Your task to perform on an android device: check out phone information Image 0: 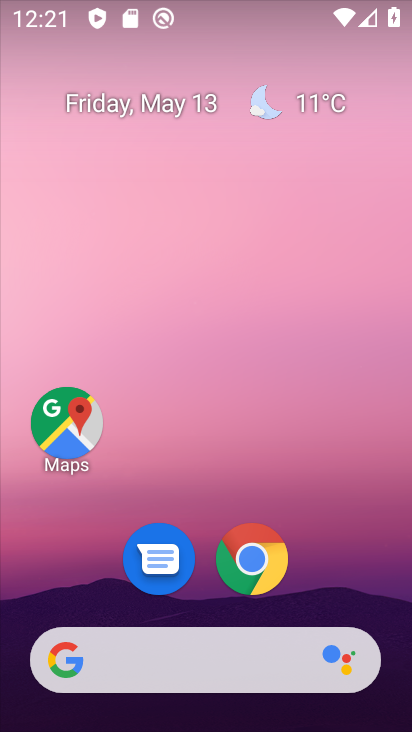
Step 0: drag from (202, 596) to (232, 100)
Your task to perform on an android device: check out phone information Image 1: 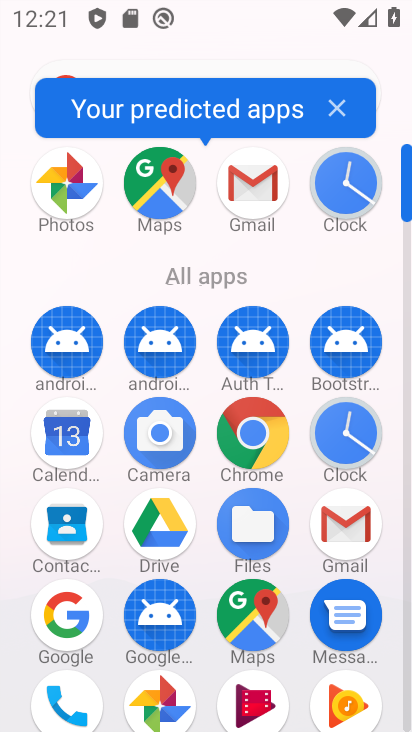
Step 1: drag from (200, 492) to (202, 165)
Your task to perform on an android device: check out phone information Image 2: 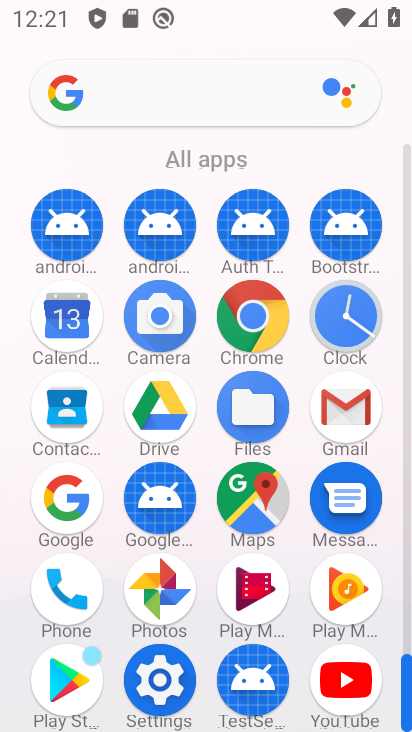
Step 2: click (162, 683)
Your task to perform on an android device: check out phone information Image 3: 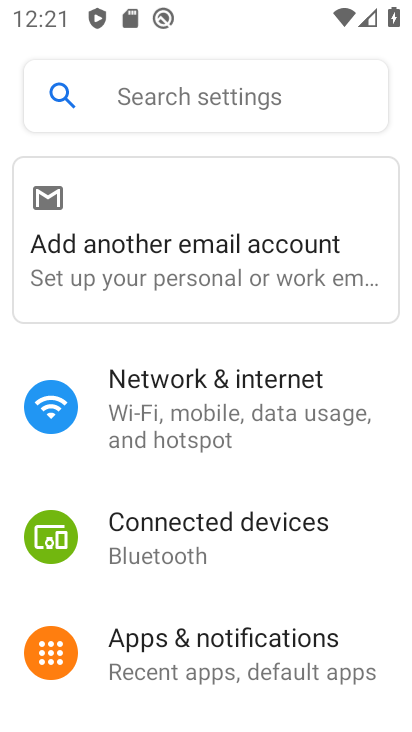
Step 3: drag from (245, 650) to (240, 125)
Your task to perform on an android device: check out phone information Image 4: 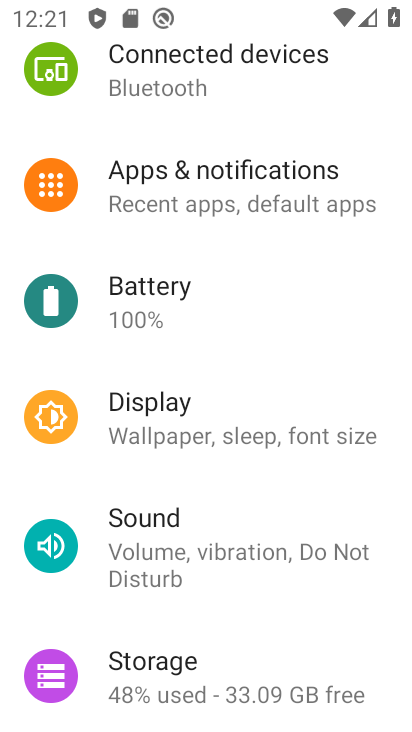
Step 4: drag from (271, 658) to (260, 55)
Your task to perform on an android device: check out phone information Image 5: 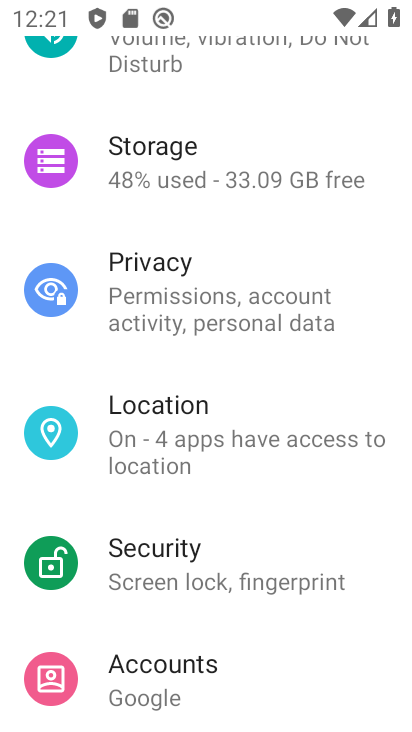
Step 5: drag from (243, 623) to (263, 27)
Your task to perform on an android device: check out phone information Image 6: 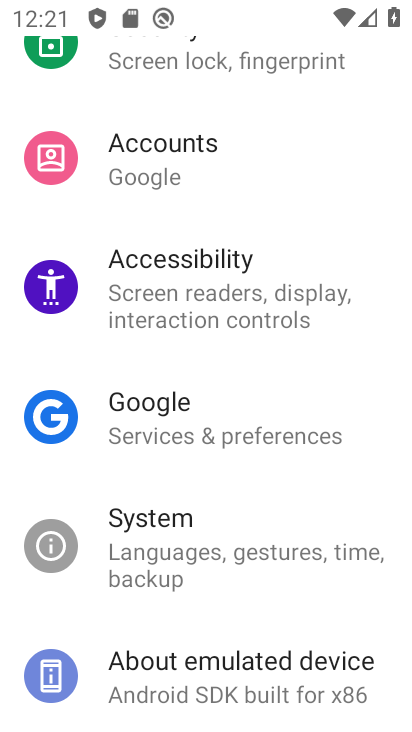
Step 6: click (217, 678)
Your task to perform on an android device: check out phone information Image 7: 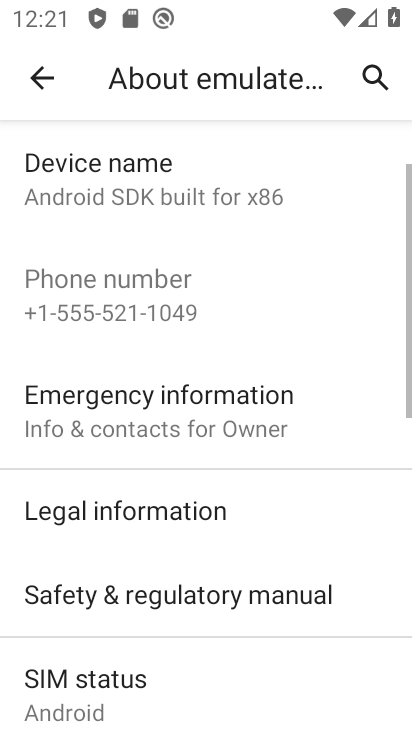
Step 7: task complete